Your task to perform on an android device: Open the phone app and click the voicemail tab. Image 0: 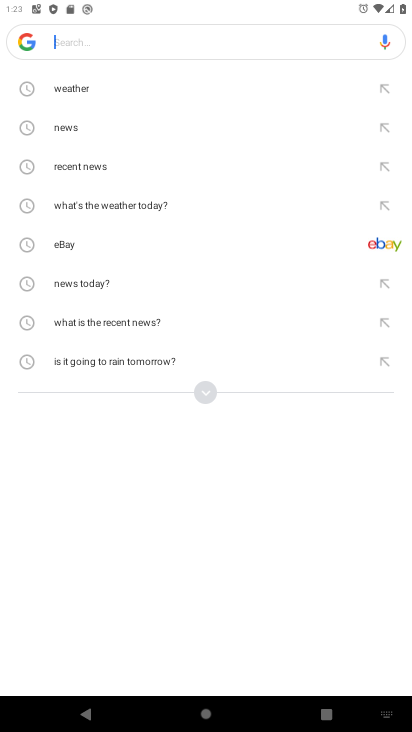
Step 0: press home button
Your task to perform on an android device: Open the phone app and click the voicemail tab. Image 1: 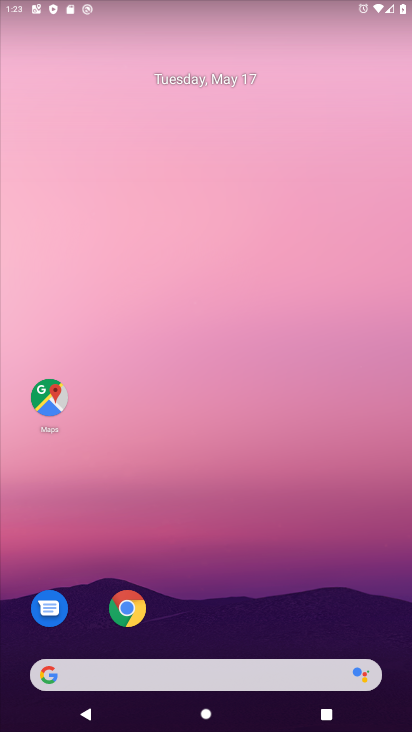
Step 1: drag from (167, 649) to (216, 23)
Your task to perform on an android device: Open the phone app and click the voicemail tab. Image 2: 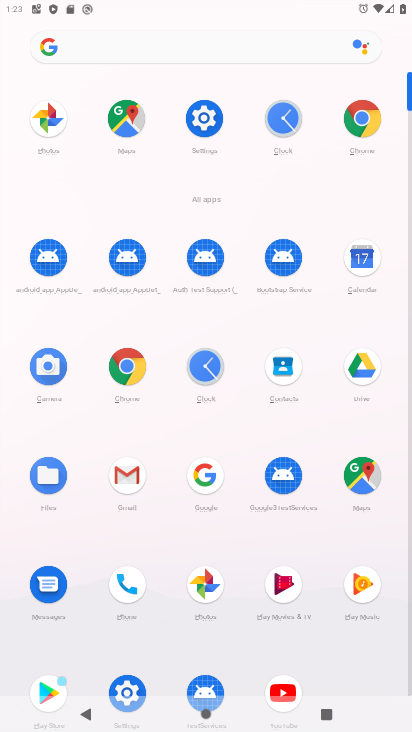
Step 2: click (137, 577)
Your task to perform on an android device: Open the phone app and click the voicemail tab. Image 3: 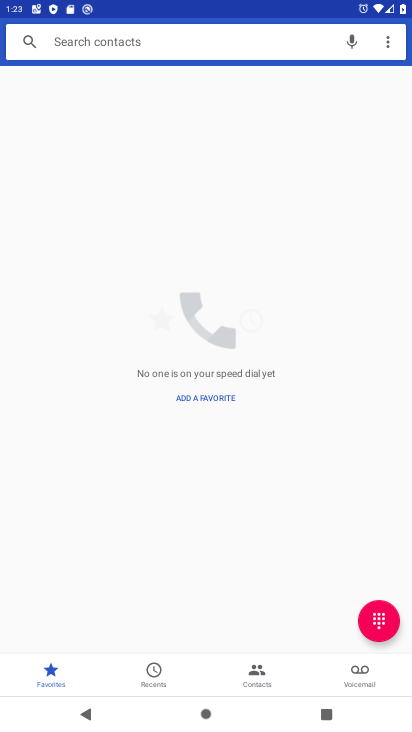
Step 3: click (353, 686)
Your task to perform on an android device: Open the phone app and click the voicemail tab. Image 4: 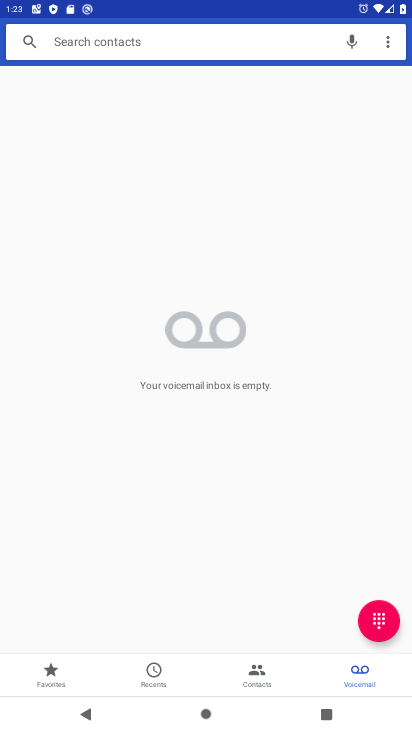
Step 4: task complete